Your task to perform on an android device: visit the assistant section in the google photos Image 0: 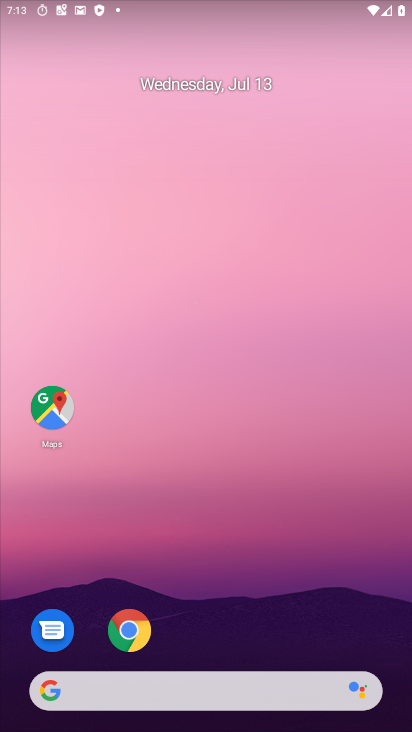
Step 0: drag from (279, 616) to (188, 25)
Your task to perform on an android device: visit the assistant section in the google photos Image 1: 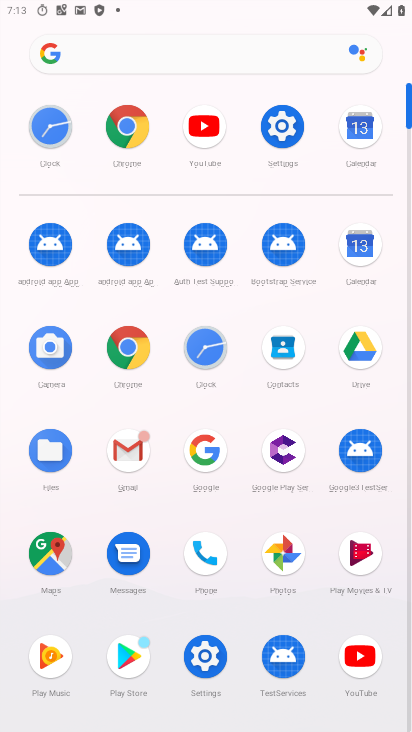
Step 1: click (298, 560)
Your task to perform on an android device: visit the assistant section in the google photos Image 2: 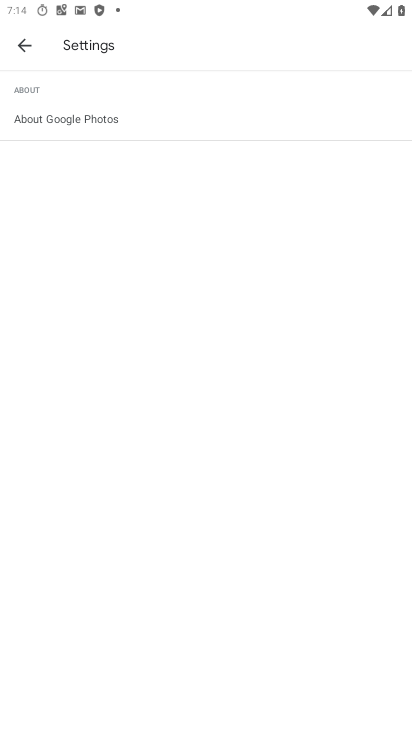
Step 2: press back button
Your task to perform on an android device: visit the assistant section in the google photos Image 3: 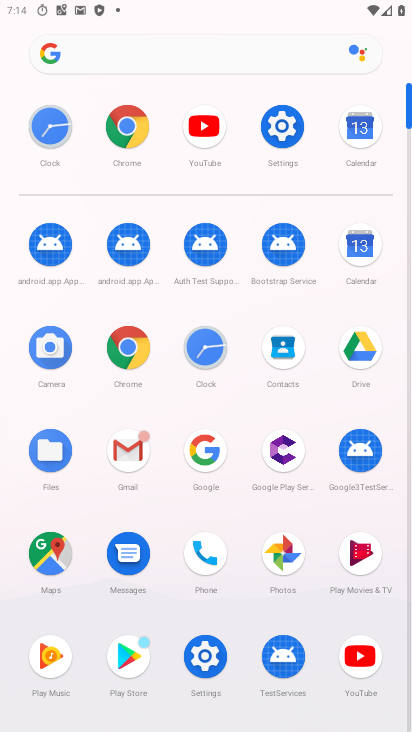
Step 3: click (287, 564)
Your task to perform on an android device: visit the assistant section in the google photos Image 4: 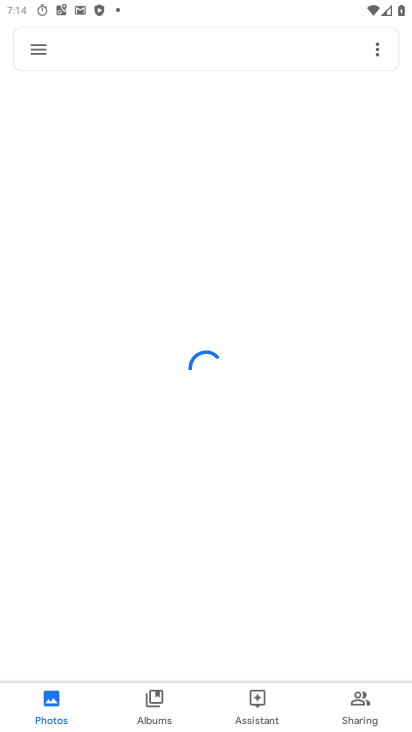
Step 4: click (258, 694)
Your task to perform on an android device: visit the assistant section in the google photos Image 5: 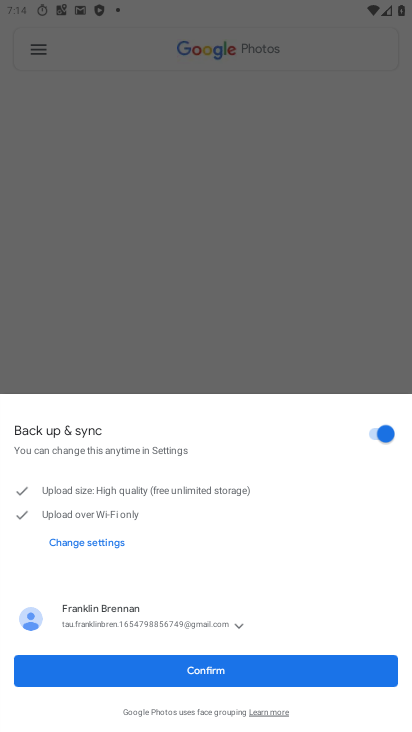
Step 5: click (262, 669)
Your task to perform on an android device: visit the assistant section in the google photos Image 6: 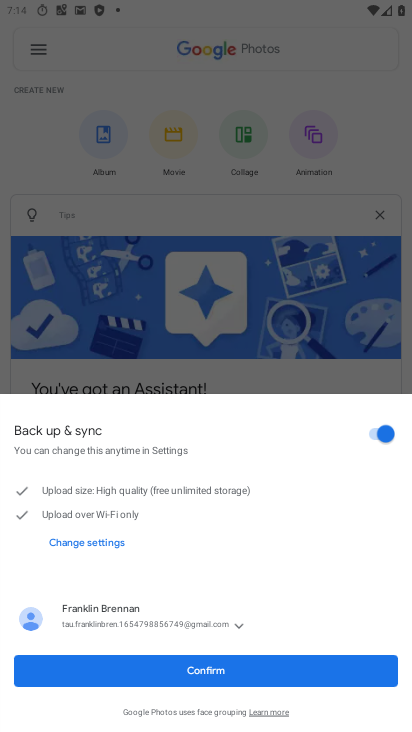
Step 6: click (262, 669)
Your task to perform on an android device: visit the assistant section in the google photos Image 7: 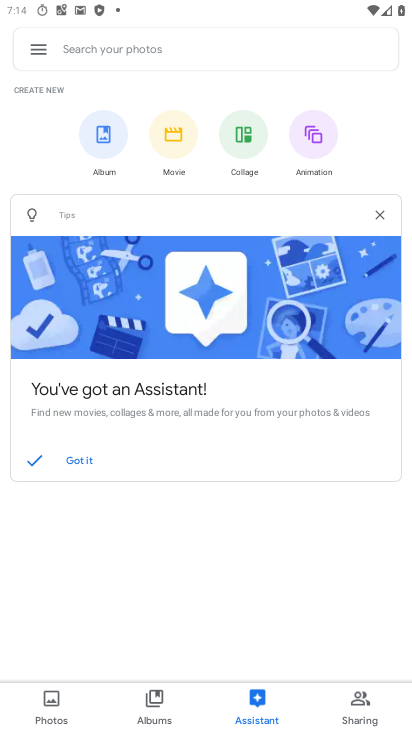
Step 7: task complete